Your task to perform on an android device: Open Youtube and go to "Your channel" Image 0: 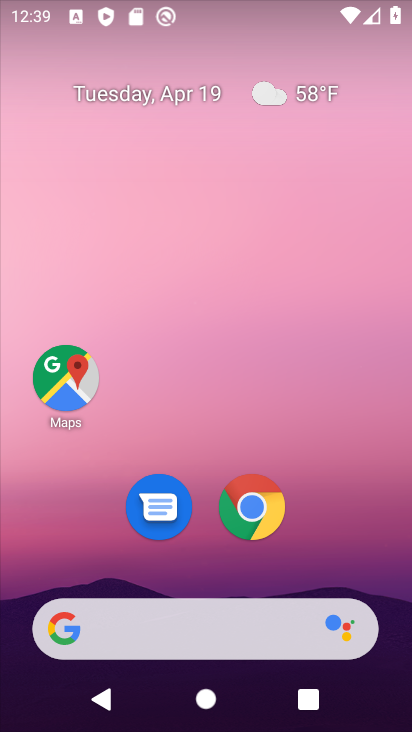
Step 0: drag from (217, 540) to (232, 146)
Your task to perform on an android device: Open Youtube and go to "Your channel" Image 1: 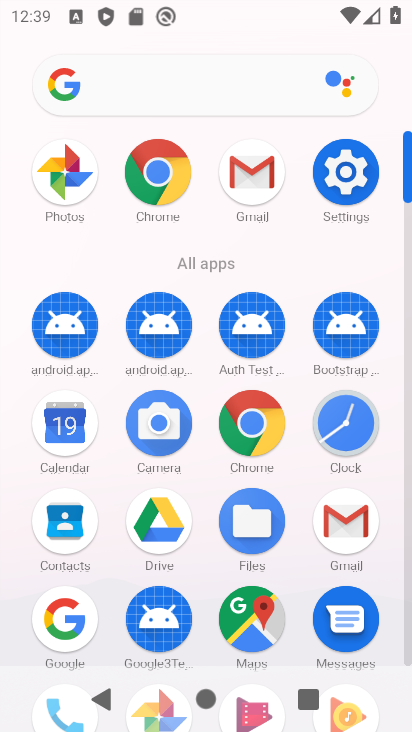
Step 1: drag from (208, 324) to (210, 247)
Your task to perform on an android device: Open Youtube and go to "Your channel" Image 2: 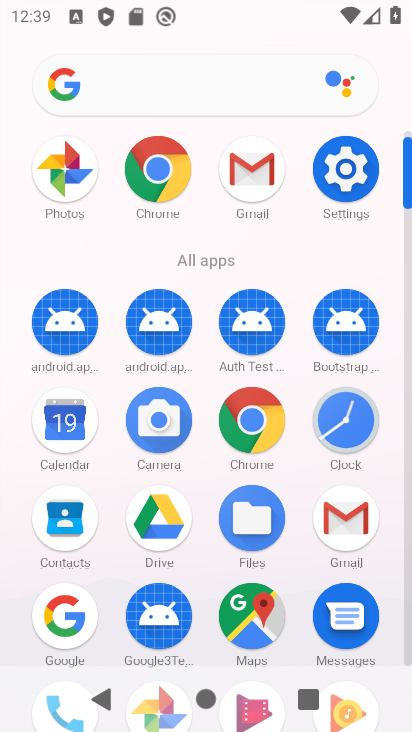
Step 2: drag from (207, 652) to (209, 279)
Your task to perform on an android device: Open Youtube and go to "Your channel" Image 3: 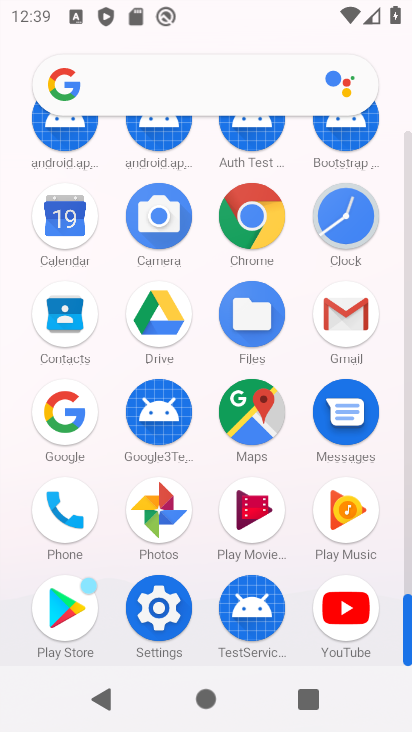
Step 3: click (345, 609)
Your task to perform on an android device: Open Youtube and go to "Your channel" Image 4: 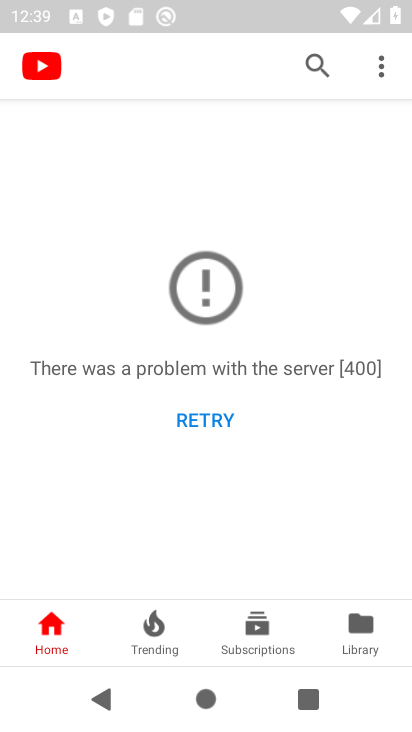
Step 4: click (352, 621)
Your task to perform on an android device: Open Youtube and go to "Your channel" Image 5: 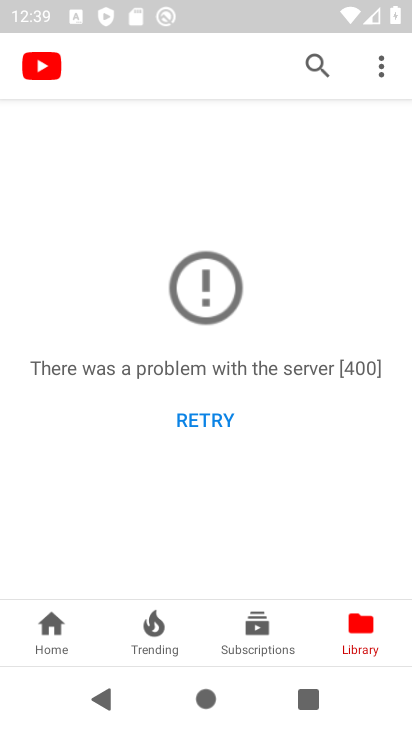
Step 5: click (359, 627)
Your task to perform on an android device: Open Youtube and go to "Your channel" Image 6: 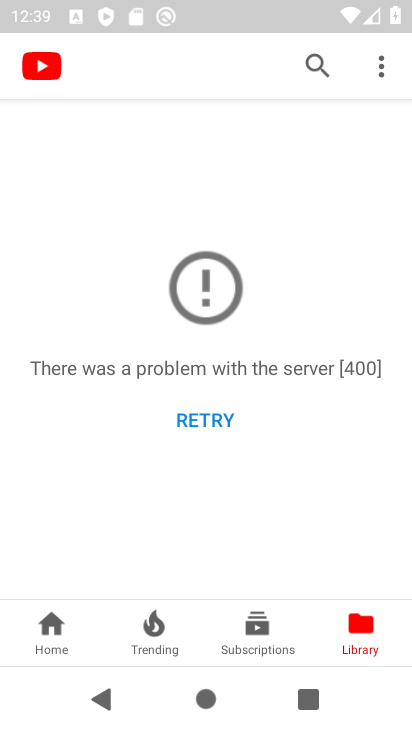
Step 6: click (200, 419)
Your task to perform on an android device: Open Youtube and go to "Your channel" Image 7: 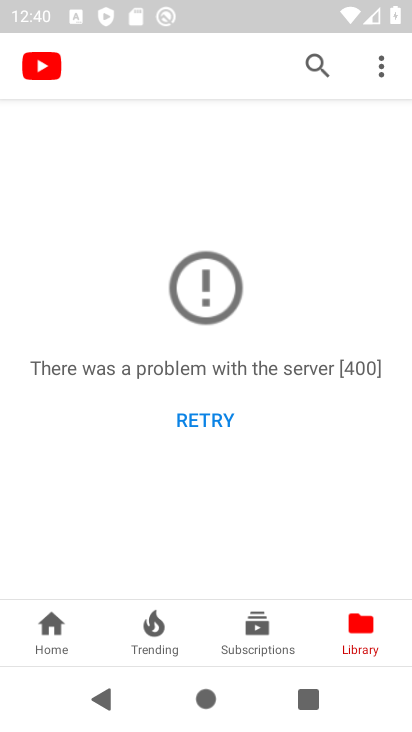
Step 7: task complete